Your task to perform on an android device: change the upload size in google photos Image 0: 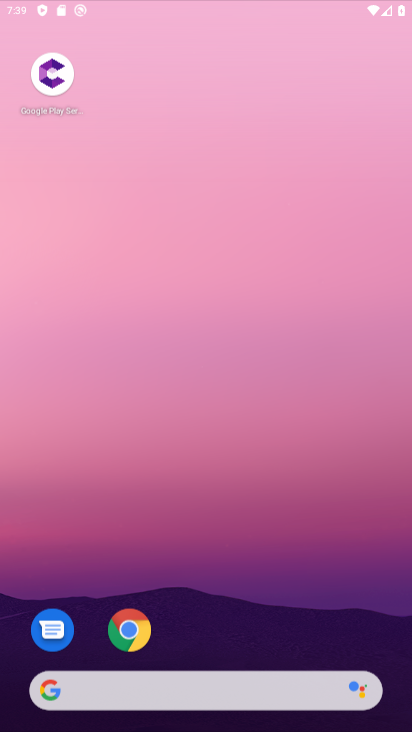
Step 0: press home button
Your task to perform on an android device: change the upload size in google photos Image 1: 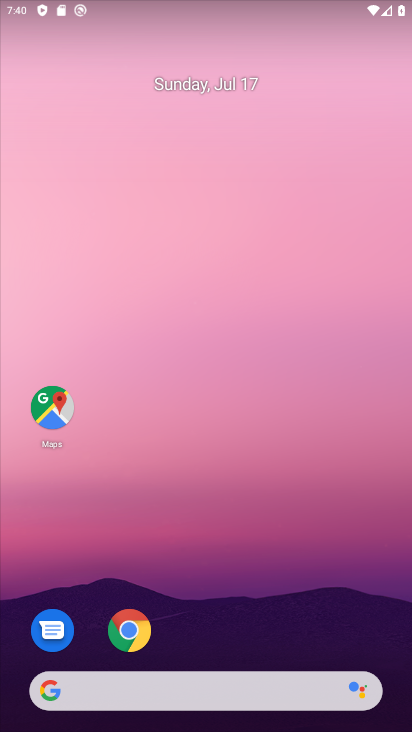
Step 1: drag from (225, 678) to (190, 171)
Your task to perform on an android device: change the upload size in google photos Image 2: 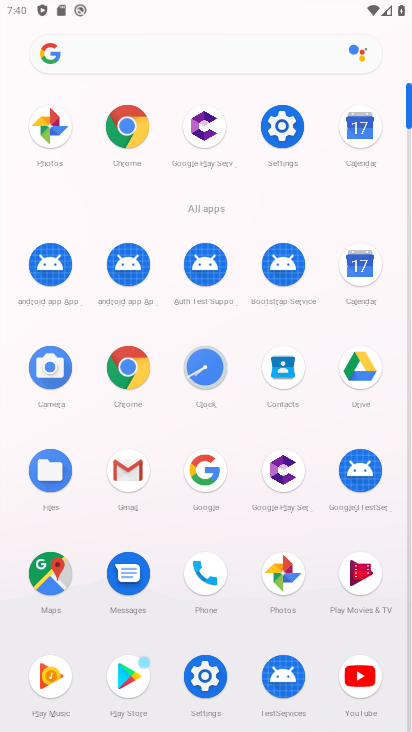
Step 2: click (303, 574)
Your task to perform on an android device: change the upload size in google photos Image 3: 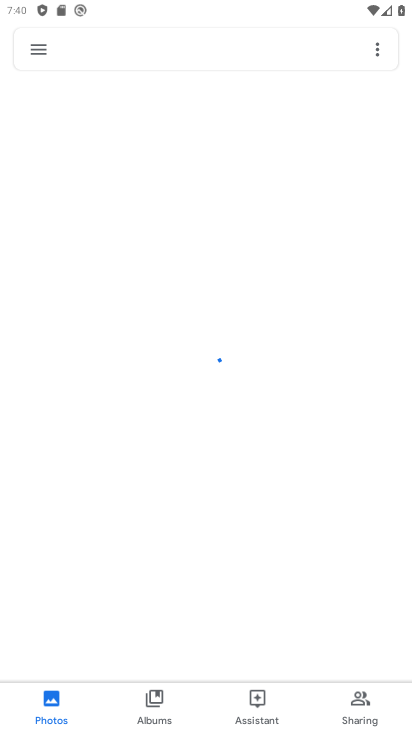
Step 3: click (44, 46)
Your task to perform on an android device: change the upload size in google photos Image 4: 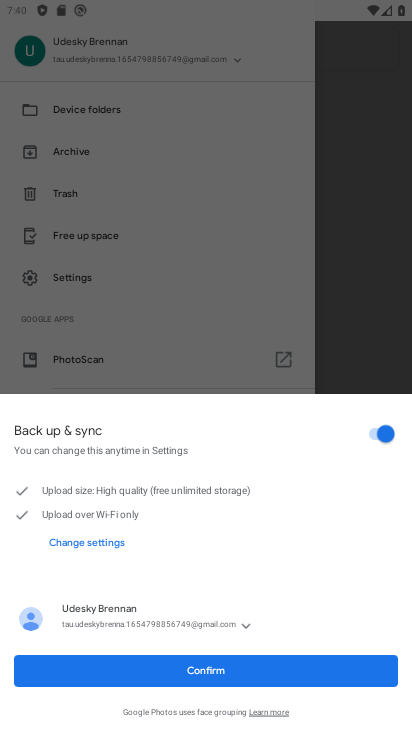
Step 4: click (99, 489)
Your task to perform on an android device: change the upload size in google photos Image 5: 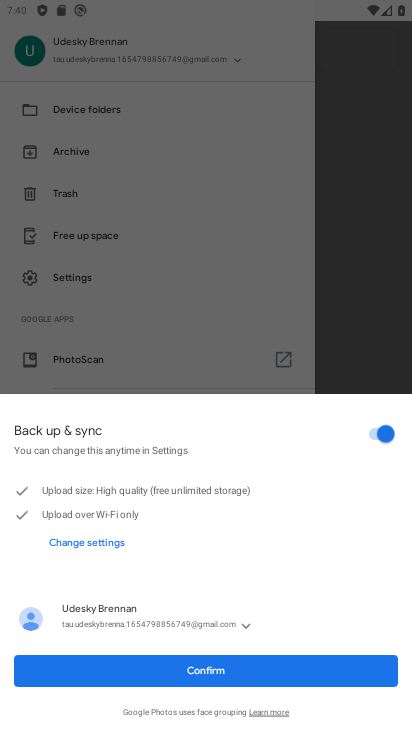
Step 5: click (185, 664)
Your task to perform on an android device: change the upload size in google photos Image 6: 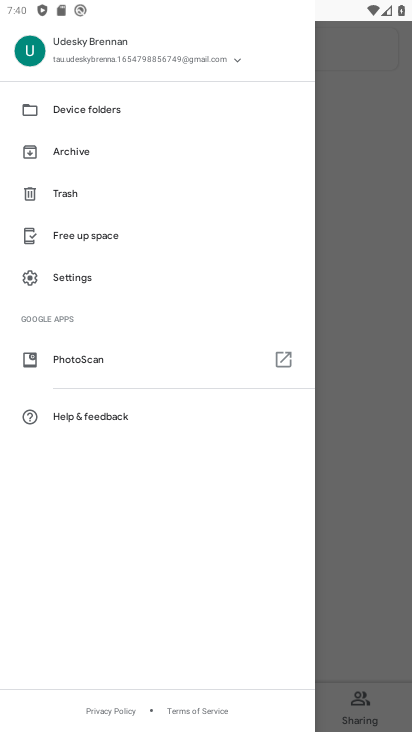
Step 6: click (67, 276)
Your task to perform on an android device: change the upload size in google photos Image 7: 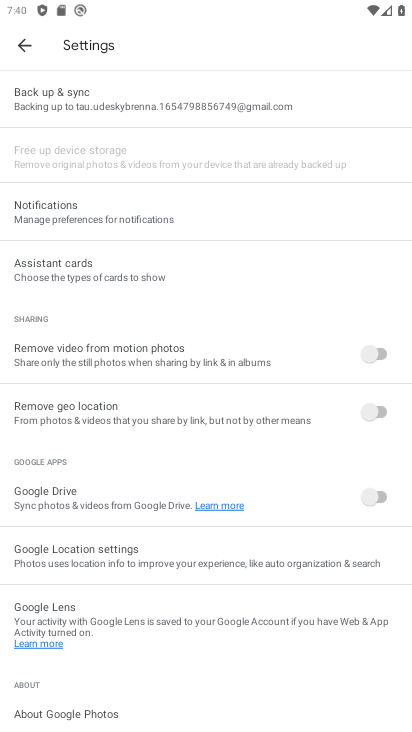
Step 7: click (125, 105)
Your task to perform on an android device: change the upload size in google photos Image 8: 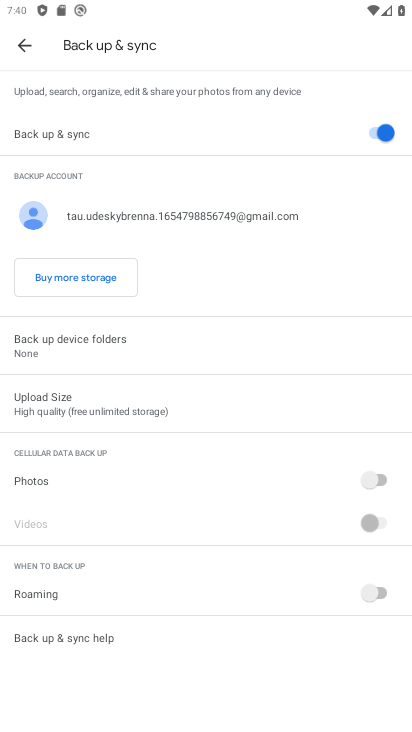
Step 8: click (117, 421)
Your task to perform on an android device: change the upload size in google photos Image 9: 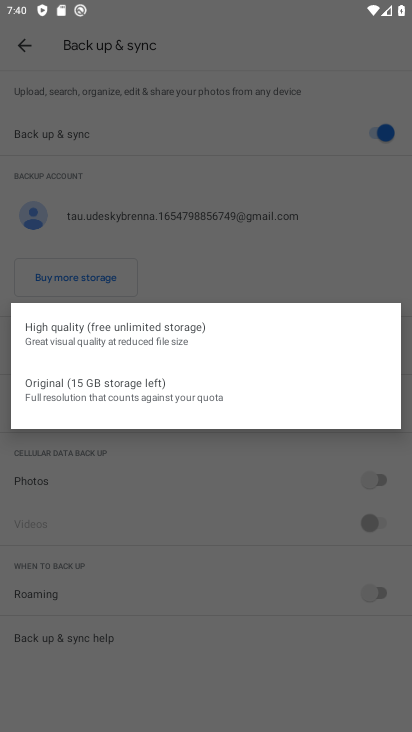
Step 9: click (117, 404)
Your task to perform on an android device: change the upload size in google photos Image 10: 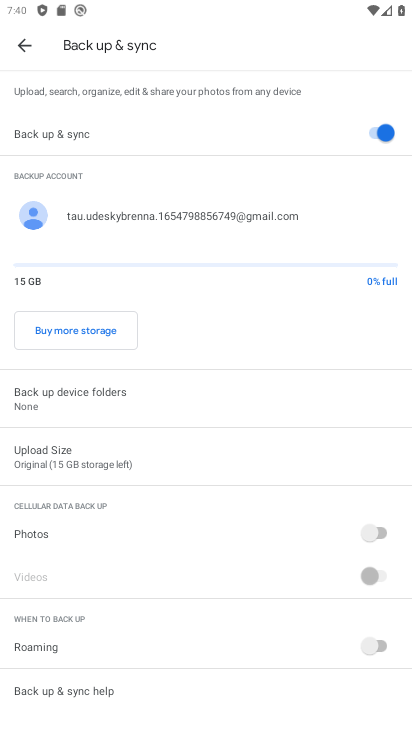
Step 10: task complete